Your task to perform on an android device: toggle airplane mode Image 0: 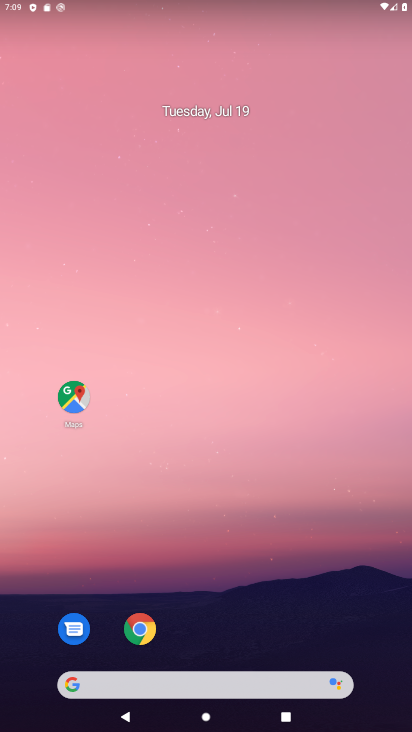
Step 0: drag from (241, 158) to (232, 270)
Your task to perform on an android device: toggle airplane mode Image 1: 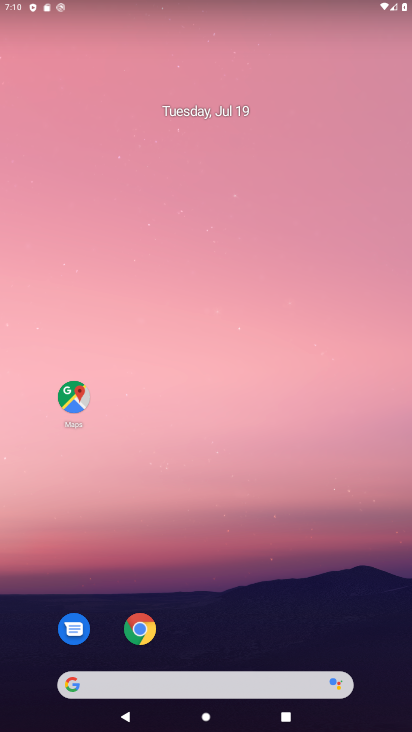
Step 1: drag from (258, 0) to (249, 222)
Your task to perform on an android device: toggle airplane mode Image 2: 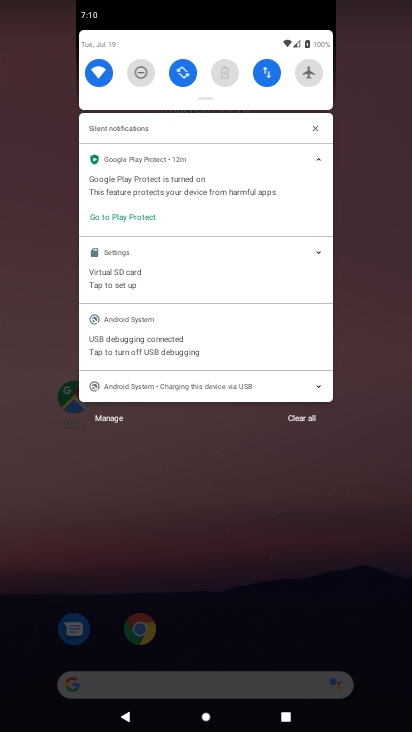
Step 2: click (306, 63)
Your task to perform on an android device: toggle airplane mode Image 3: 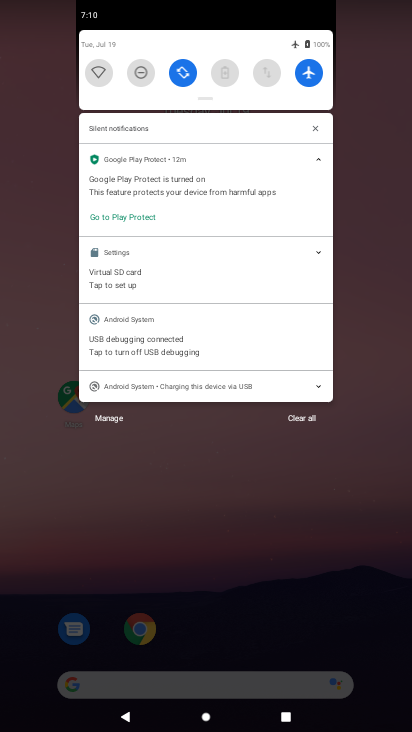
Step 3: task complete